Your task to perform on an android device: How much does a 2 bedroom apartment rent for in Houston? Image 0: 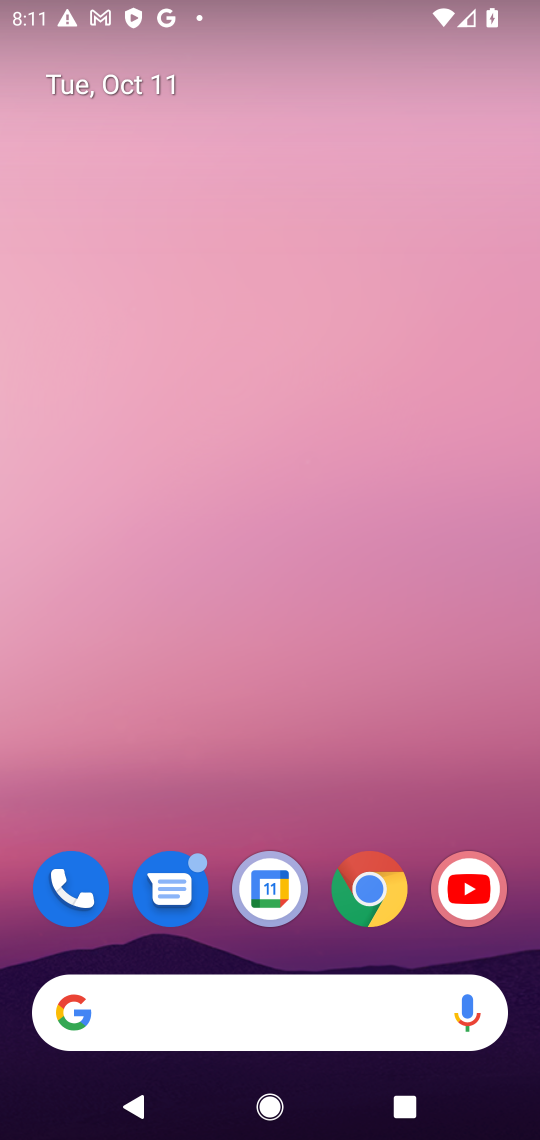
Step 0: click (225, 1023)
Your task to perform on an android device: How much does a 2 bedroom apartment rent for in Houston? Image 1: 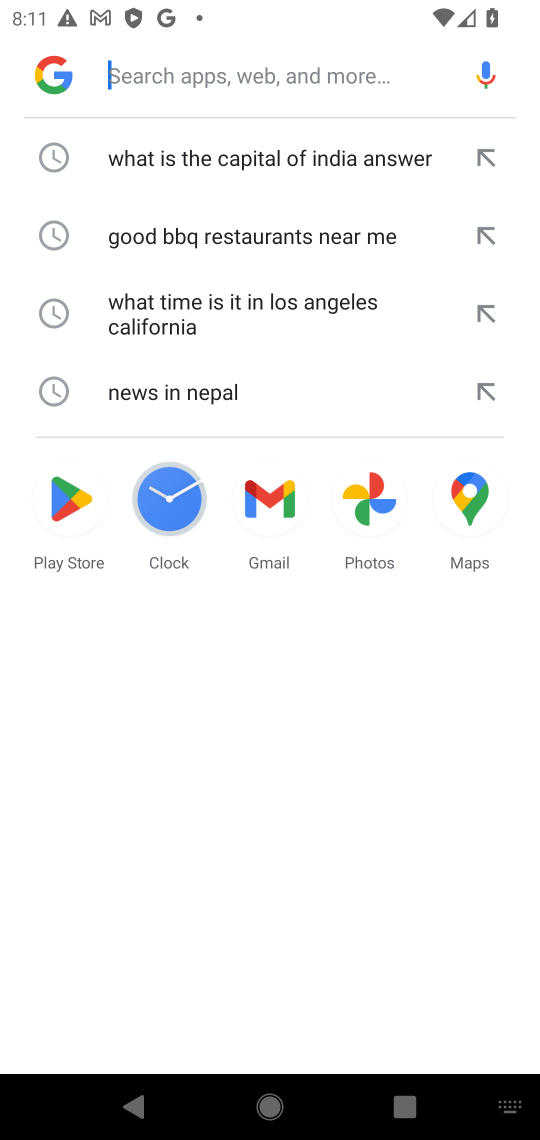
Step 1: click (223, 71)
Your task to perform on an android device: How much does a 2 bedroom apartment rent for in Houston? Image 2: 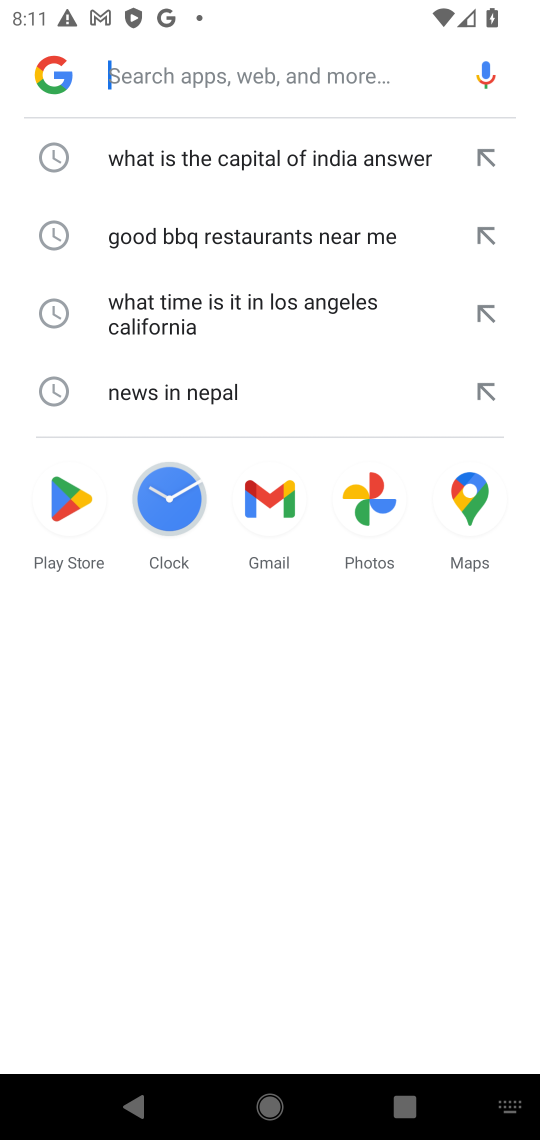
Step 2: type "How much does a 2 bedroom apartment rent for in Houston?"
Your task to perform on an android device: How much does a 2 bedroom apartment rent for in Houston? Image 3: 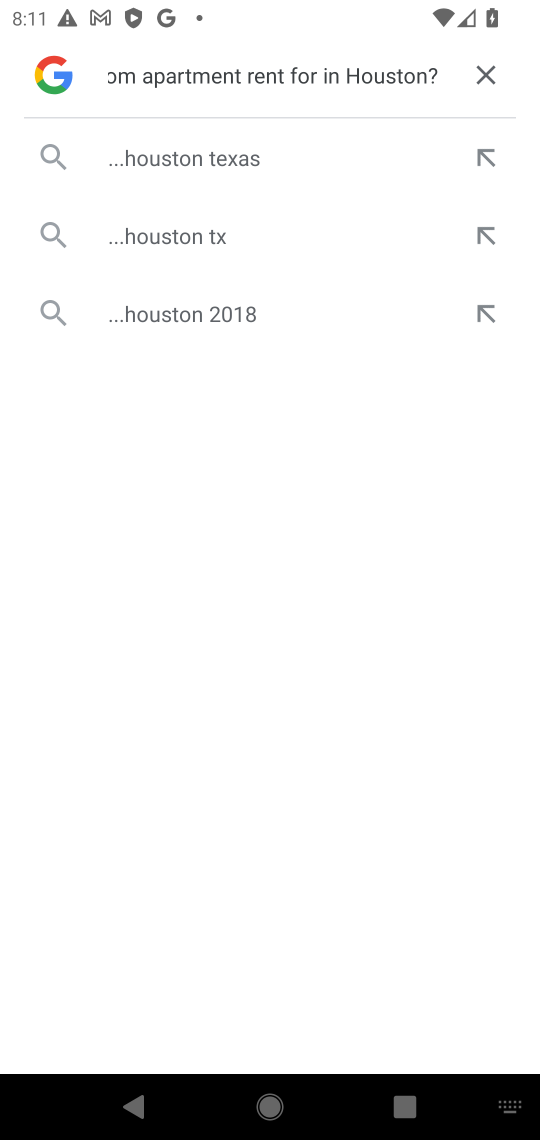
Step 3: click (179, 160)
Your task to perform on an android device: How much does a 2 bedroom apartment rent for in Houston? Image 4: 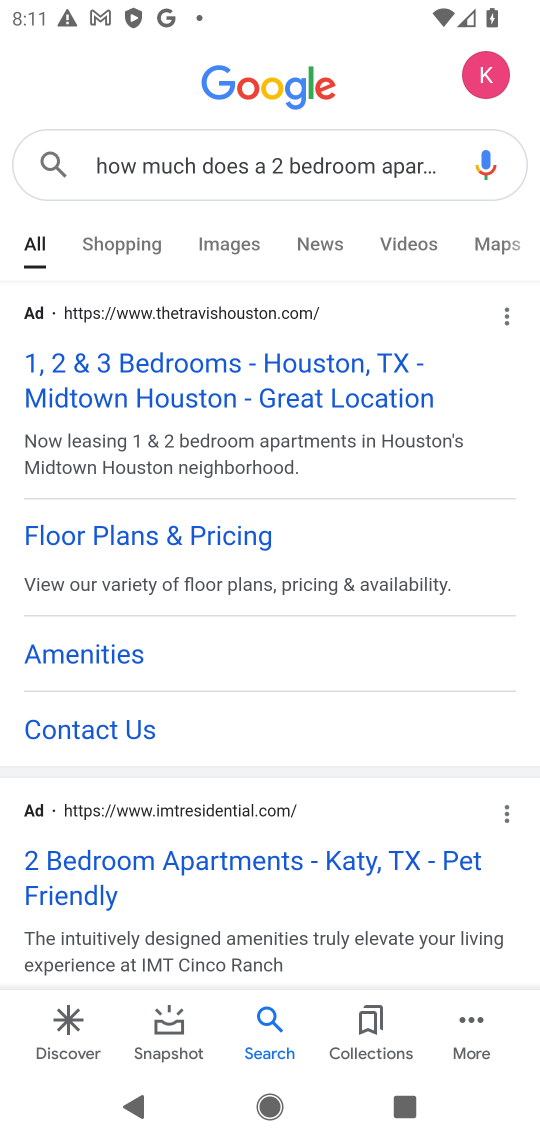
Step 4: task complete